Your task to perform on an android device: add a label to a message in the gmail app Image 0: 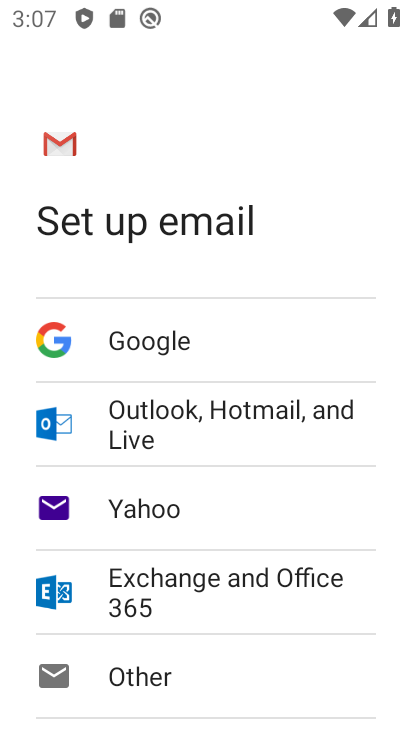
Step 0: press home button
Your task to perform on an android device: add a label to a message in the gmail app Image 1: 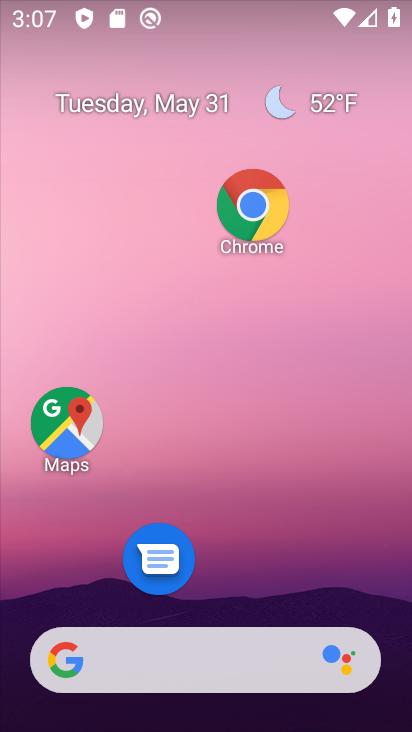
Step 1: drag from (202, 378) to (170, 199)
Your task to perform on an android device: add a label to a message in the gmail app Image 2: 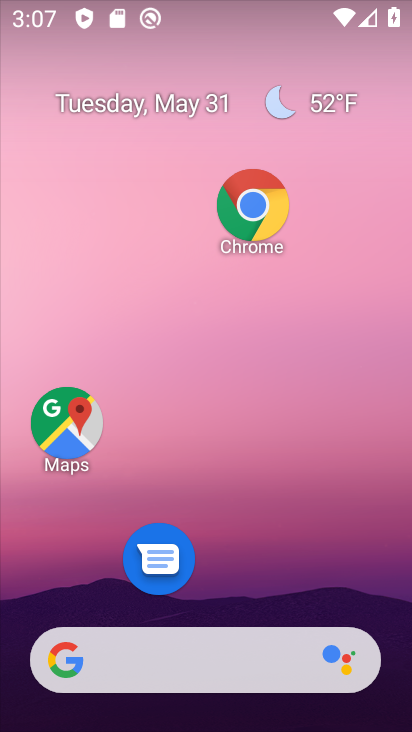
Step 2: drag from (219, 608) to (209, 172)
Your task to perform on an android device: add a label to a message in the gmail app Image 3: 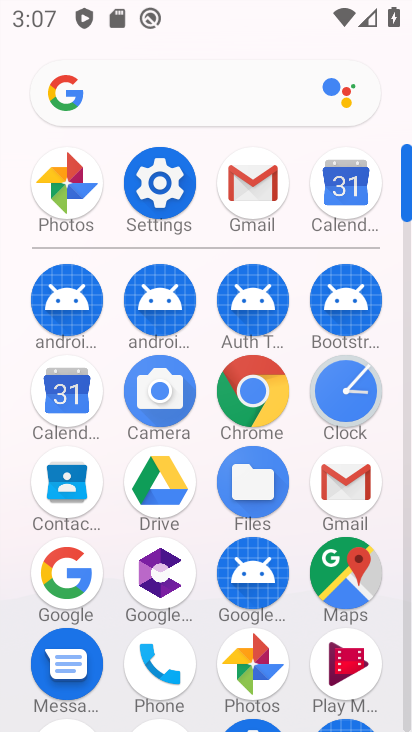
Step 3: click (250, 166)
Your task to perform on an android device: add a label to a message in the gmail app Image 4: 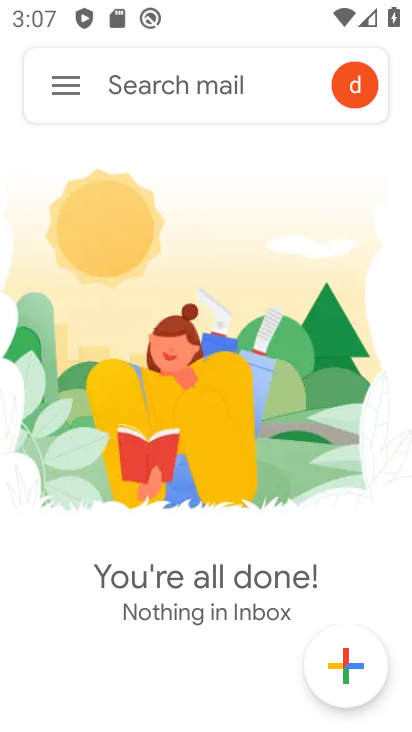
Step 4: click (56, 94)
Your task to perform on an android device: add a label to a message in the gmail app Image 5: 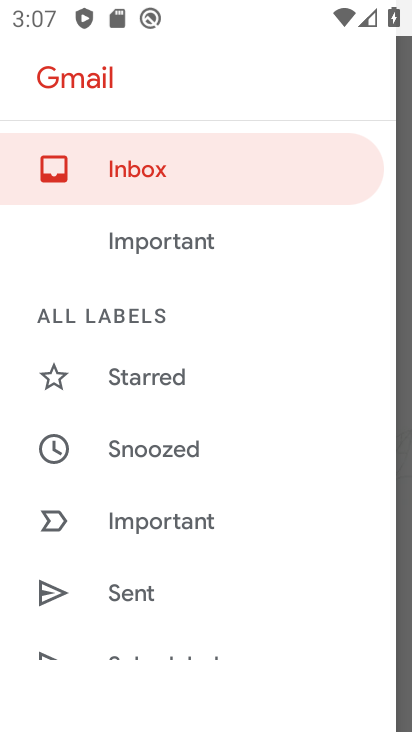
Step 5: drag from (217, 571) to (184, 284)
Your task to perform on an android device: add a label to a message in the gmail app Image 6: 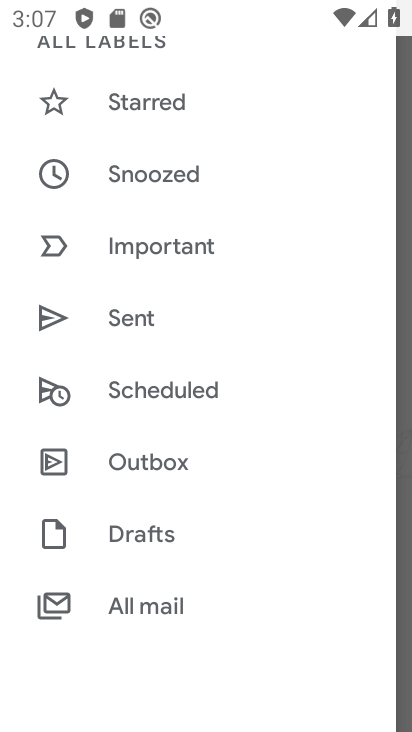
Step 6: click (170, 591)
Your task to perform on an android device: add a label to a message in the gmail app Image 7: 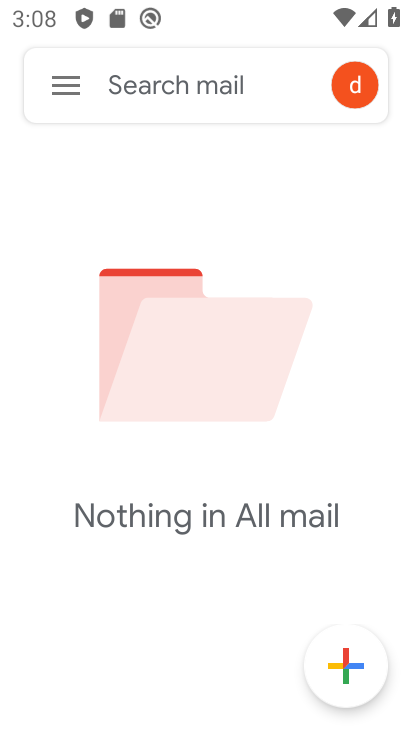
Step 7: task complete